Your task to perform on an android device: see tabs open on other devices in the chrome app Image 0: 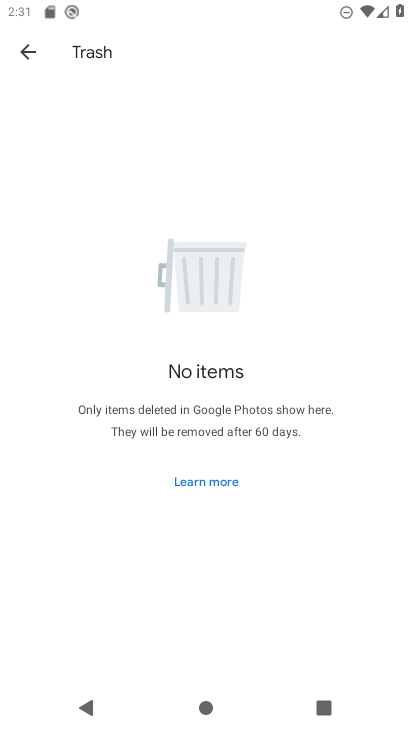
Step 0: press home button
Your task to perform on an android device: see tabs open on other devices in the chrome app Image 1: 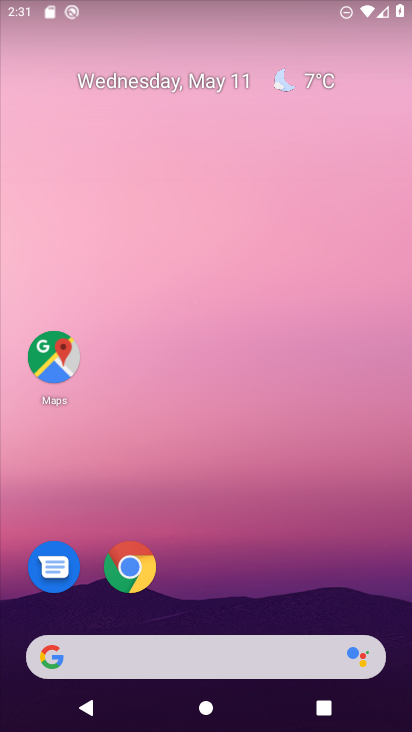
Step 1: click (115, 579)
Your task to perform on an android device: see tabs open on other devices in the chrome app Image 2: 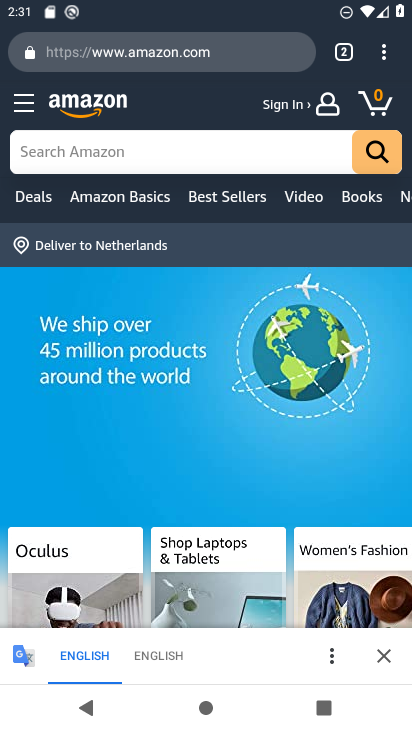
Step 2: click (388, 60)
Your task to perform on an android device: see tabs open on other devices in the chrome app Image 3: 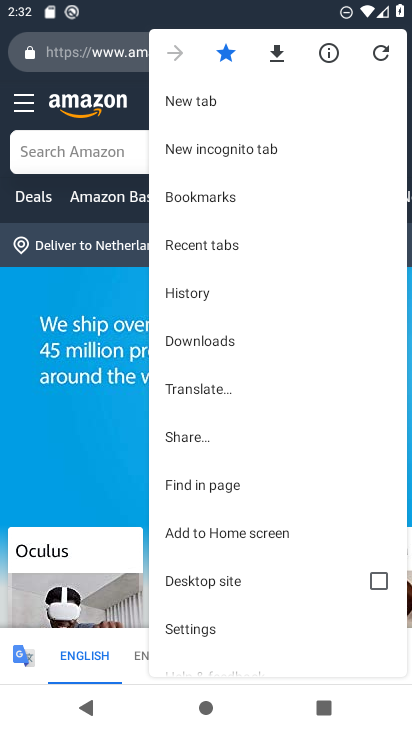
Step 3: click (239, 248)
Your task to perform on an android device: see tabs open on other devices in the chrome app Image 4: 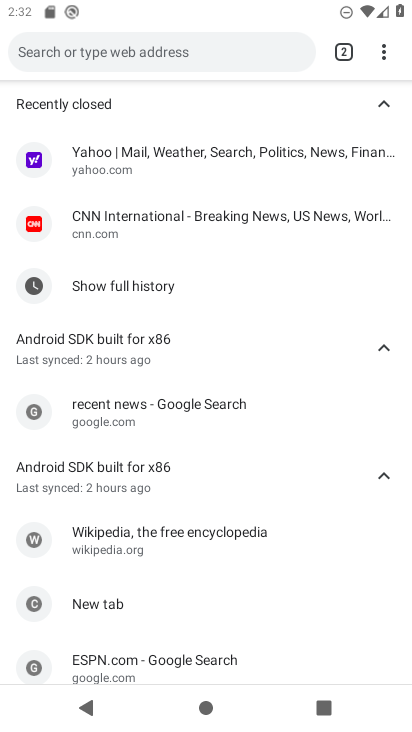
Step 4: task complete